Your task to perform on an android device: make emails show in primary in the gmail app Image 0: 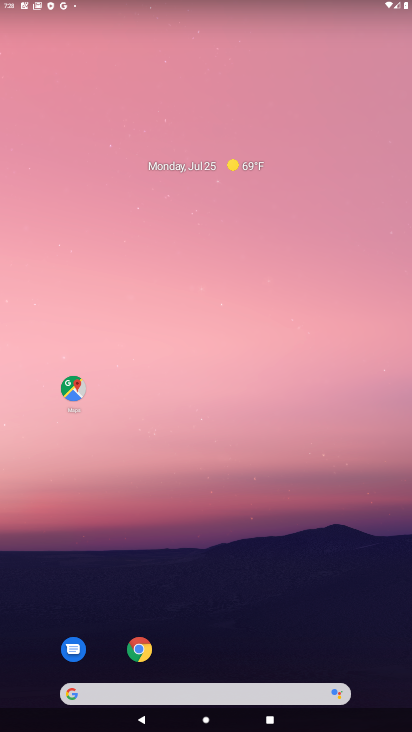
Step 0: drag from (206, 559) to (65, 0)
Your task to perform on an android device: make emails show in primary in the gmail app Image 1: 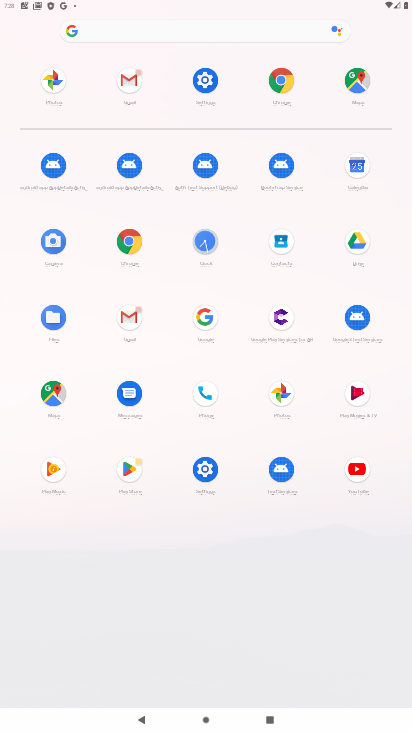
Step 1: click (139, 76)
Your task to perform on an android device: make emails show in primary in the gmail app Image 2: 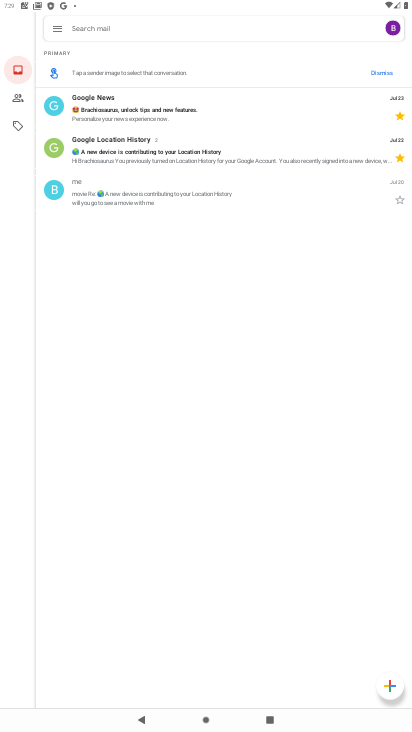
Step 2: click (59, 36)
Your task to perform on an android device: make emails show in primary in the gmail app Image 3: 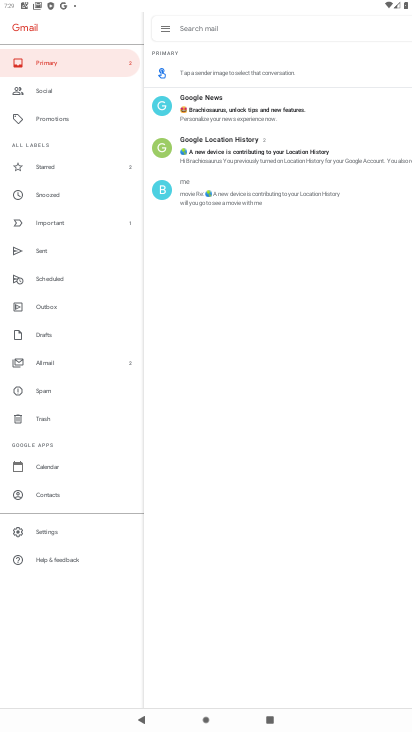
Step 3: click (37, 535)
Your task to perform on an android device: make emails show in primary in the gmail app Image 4: 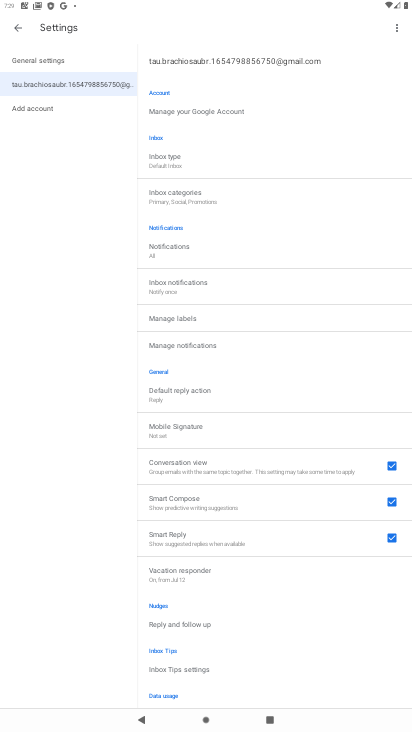
Step 4: task complete